Your task to perform on an android device: toggle notification dots Image 0: 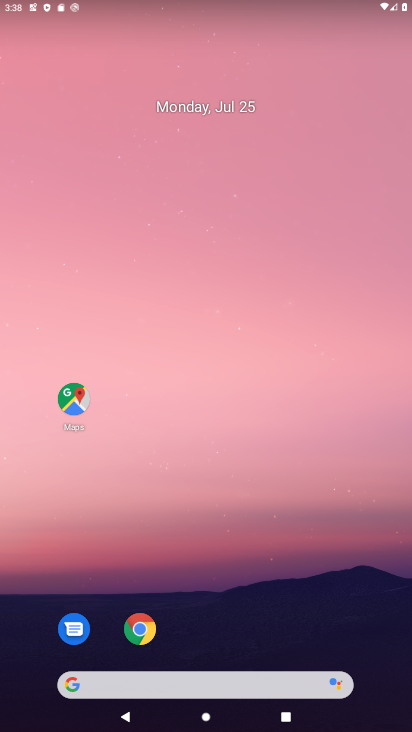
Step 0: drag from (280, 589) to (270, 22)
Your task to perform on an android device: toggle notification dots Image 1: 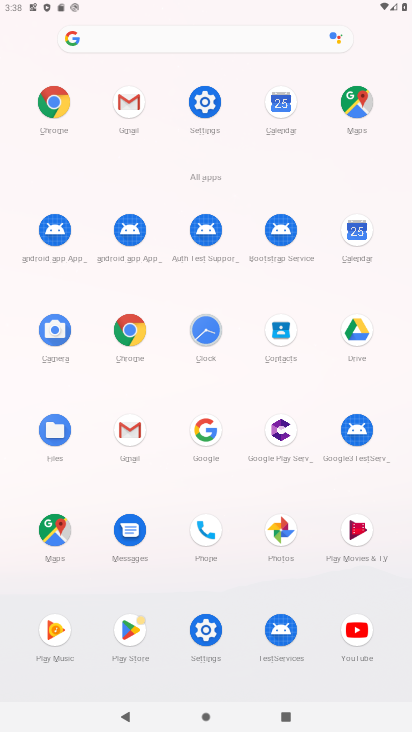
Step 1: click (204, 95)
Your task to perform on an android device: toggle notification dots Image 2: 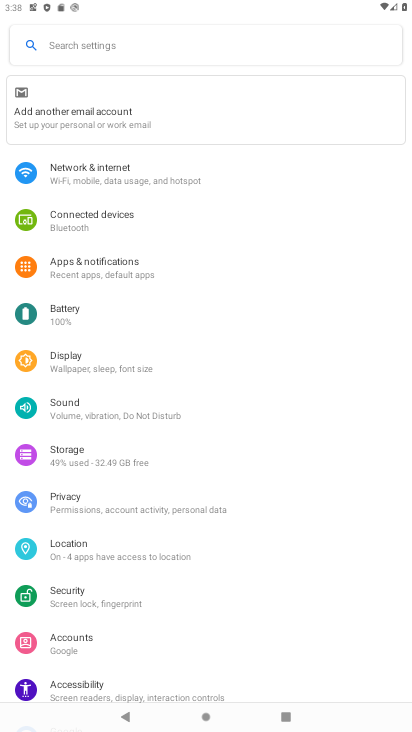
Step 2: click (170, 275)
Your task to perform on an android device: toggle notification dots Image 3: 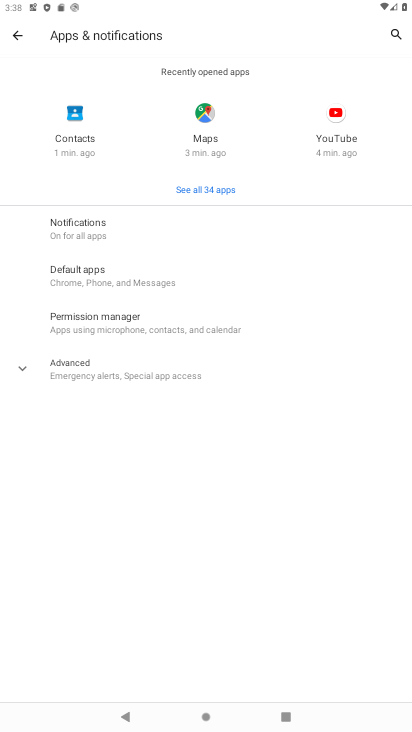
Step 3: click (143, 363)
Your task to perform on an android device: toggle notification dots Image 4: 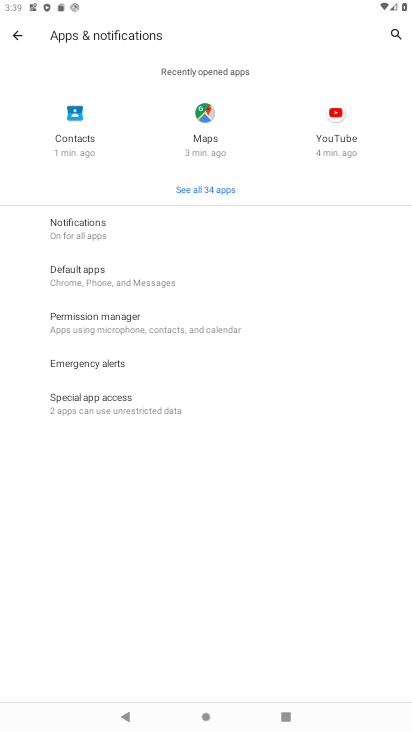
Step 4: click (82, 225)
Your task to perform on an android device: toggle notification dots Image 5: 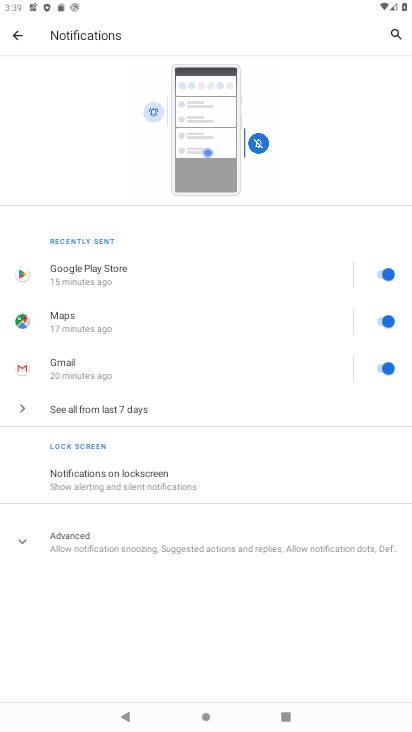
Step 5: click (119, 535)
Your task to perform on an android device: toggle notification dots Image 6: 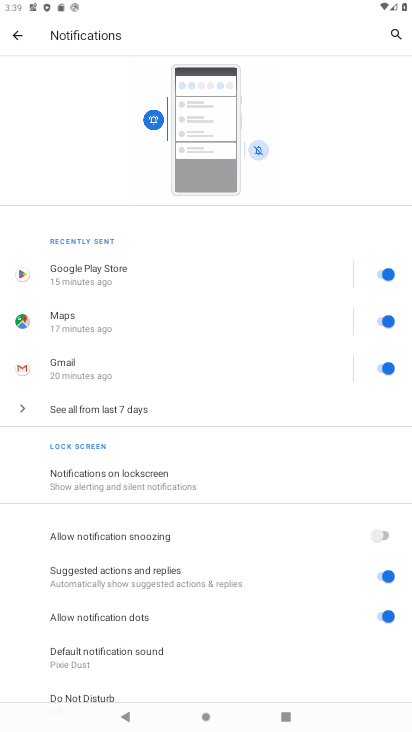
Step 6: click (377, 616)
Your task to perform on an android device: toggle notification dots Image 7: 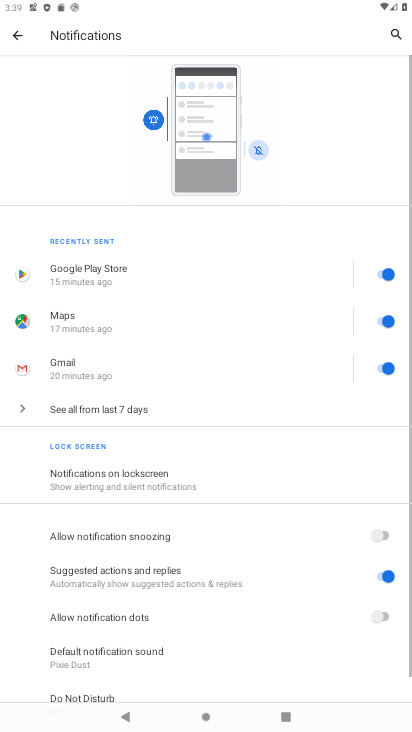
Step 7: task complete